Your task to perform on an android device: change the clock display to digital Image 0: 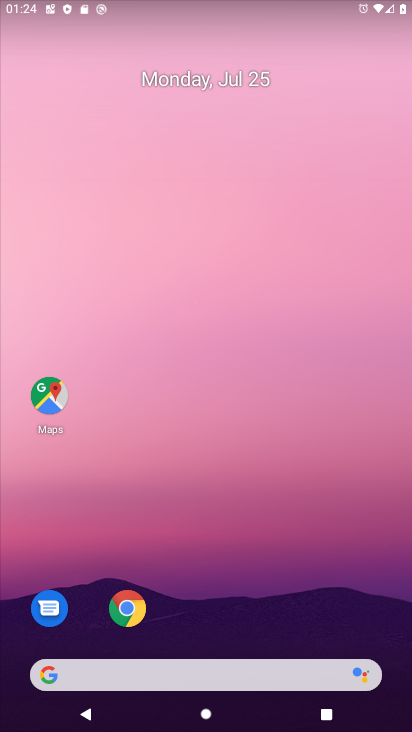
Step 0: drag from (245, 654) to (238, 18)
Your task to perform on an android device: change the clock display to digital Image 1: 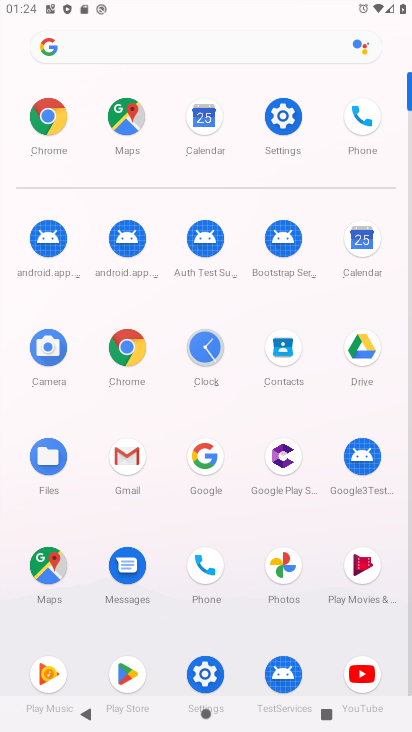
Step 1: click (215, 360)
Your task to perform on an android device: change the clock display to digital Image 2: 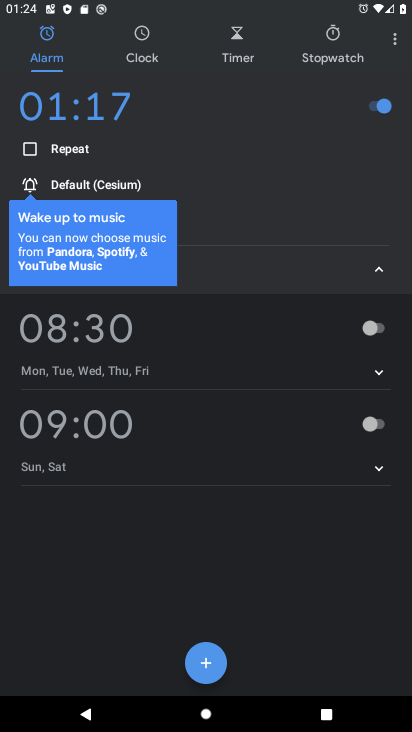
Step 2: drag from (392, 43) to (286, 75)
Your task to perform on an android device: change the clock display to digital Image 3: 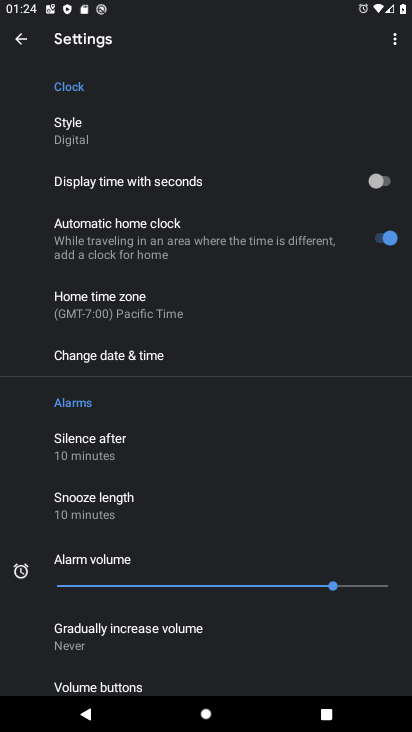
Step 3: click (102, 104)
Your task to perform on an android device: change the clock display to digital Image 4: 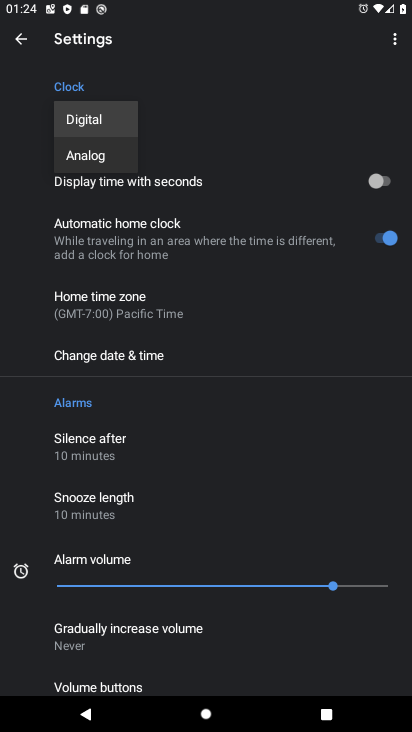
Step 4: click (99, 111)
Your task to perform on an android device: change the clock display to digital Image 5: 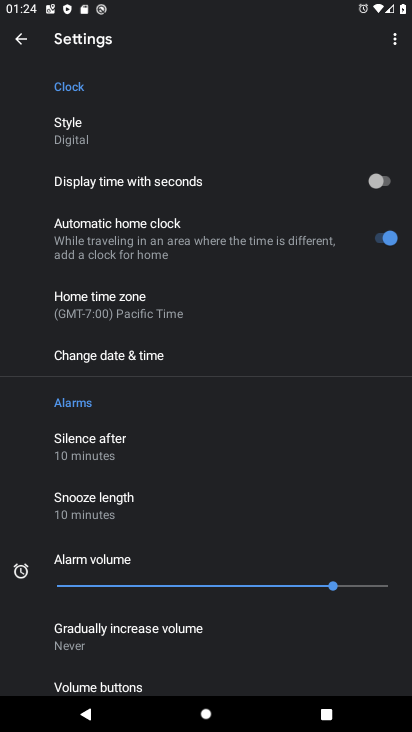
Step 5: task complete